Your task to perform on an android device: Go to Wikipedia Image 0: 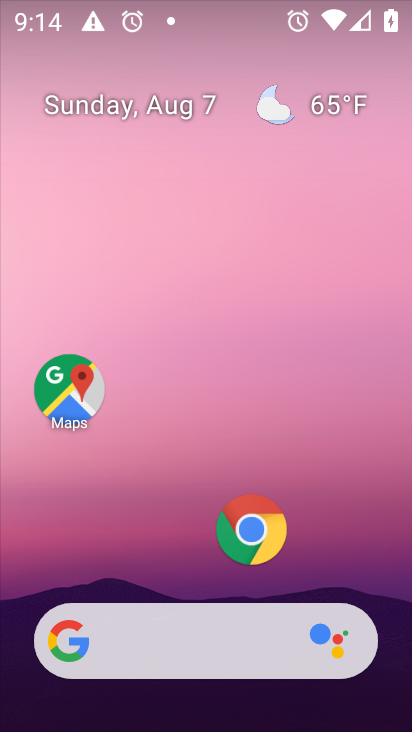
Step 0: click (244, 531)
Your task to perform on an android device: Go to Wikipedia Image 1: 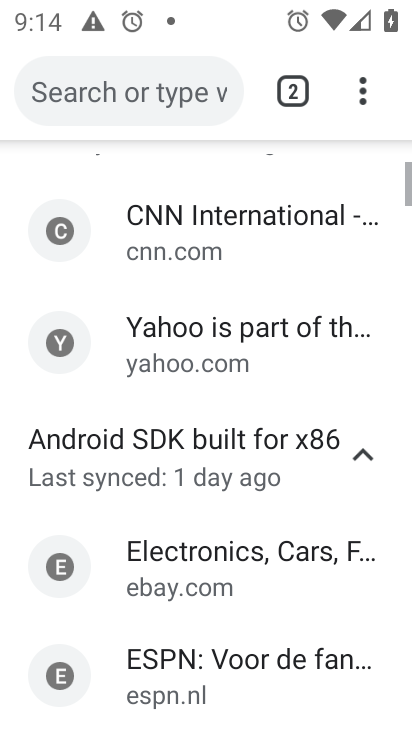
Step 1: click (122, 101)
Your task to perform on an android device: Go to Wikipedia Image 2: 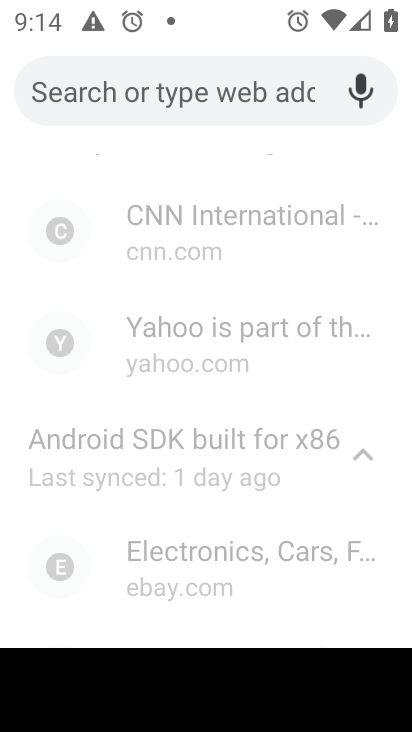
Step 2: type "wikipedia"
Your task to perform on an android device: Go to Wikipedia Image 3: 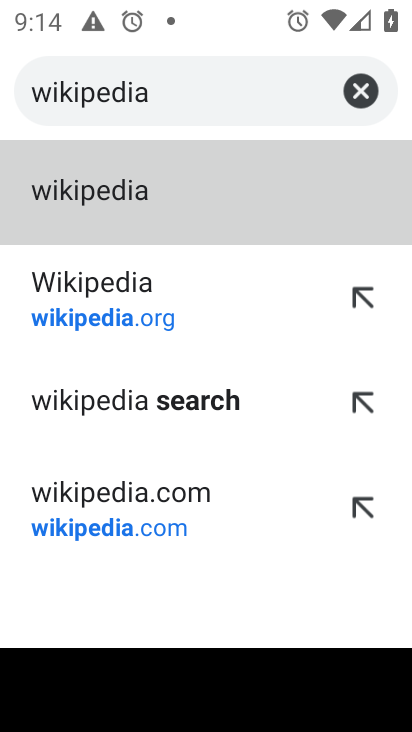
Step 3: click (129, 284)
Your task to perform on an android device: Go to Wikipedia Image 4: 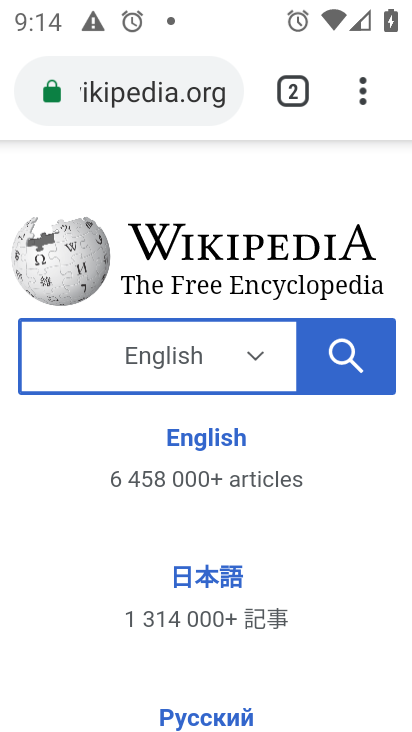
Step 4: task complete